Your task to perform on an android device: See recent photos Image 0: 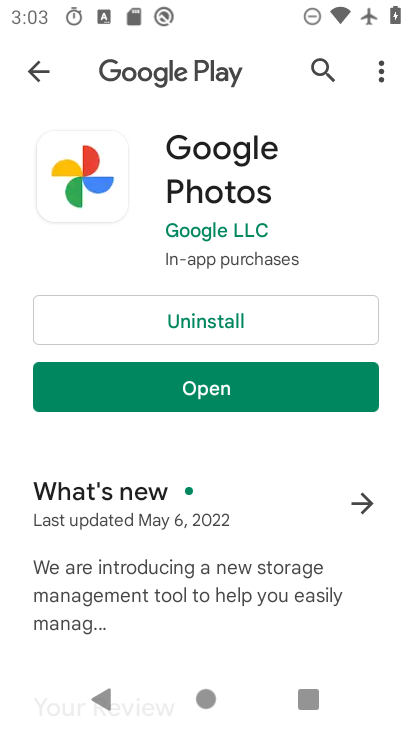
Step 0: click (195, 385)
Your task to perform on an android device: See recent photos Image 1: 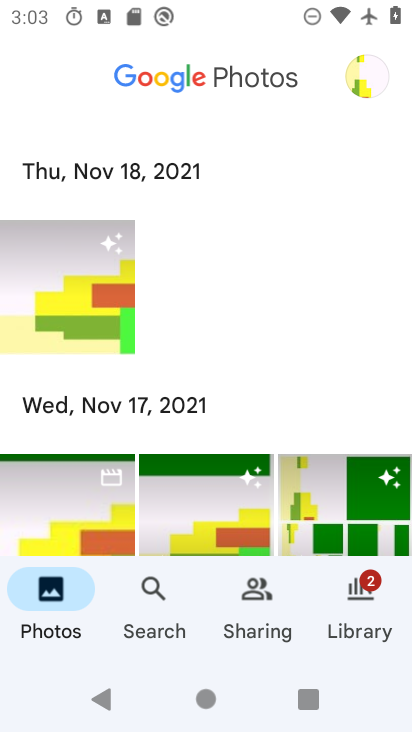
Step 1: task complete